Your task to perform on an android device: Go to Android settings Image 0: 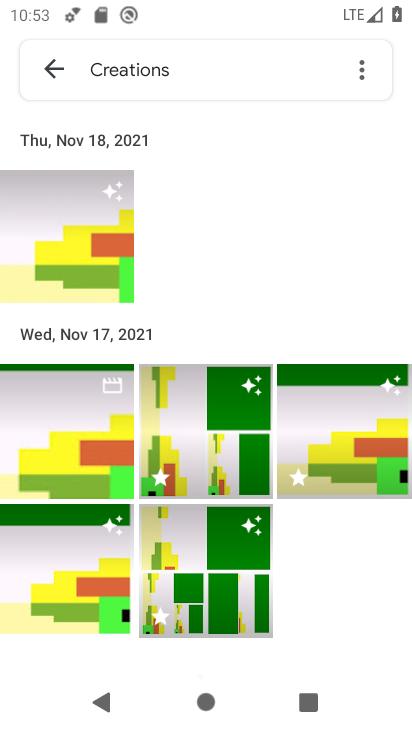
Step 0: press home button
Your task to perform on an android device: Go to Android settings Image 1: 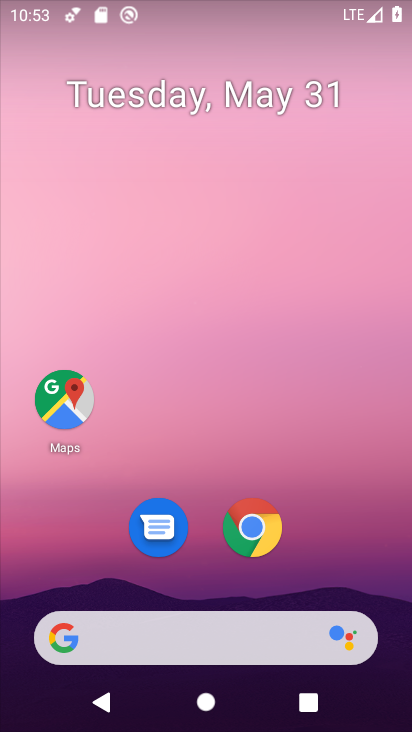
Step 1: drag from (337, 585) to (356, 3)
Your task to perform on an android device: Go to Android settings Image 2: 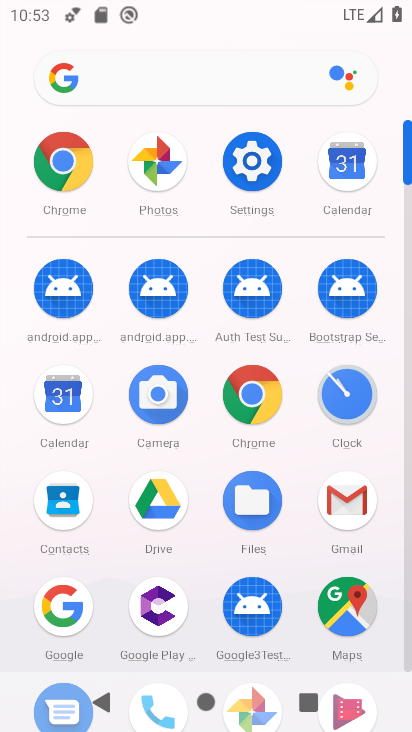
Step 2: click (248, 155)
Your task to perform on an android device: Go to Android settings Image 3: 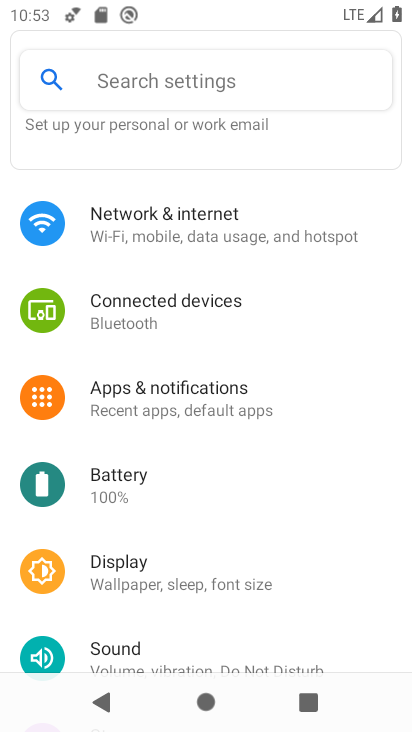
Step 3: task complete